Your task to perform on an android device: Open accessibility settings Image 0: 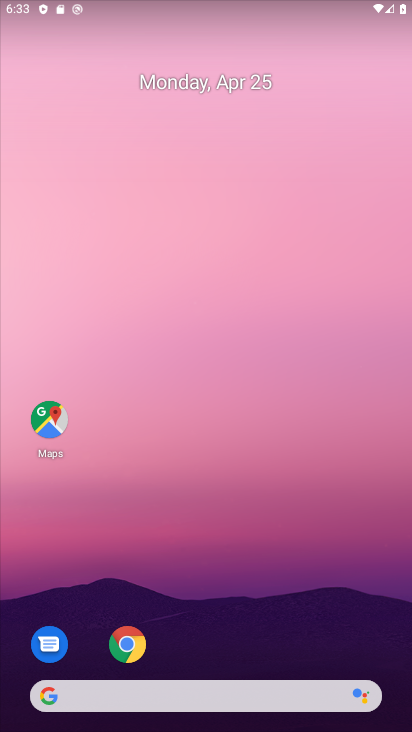
Step 0: drag from (275, 643) to (248, 125)
Your task to perform on an android device: Open accessibility settings Image 1: 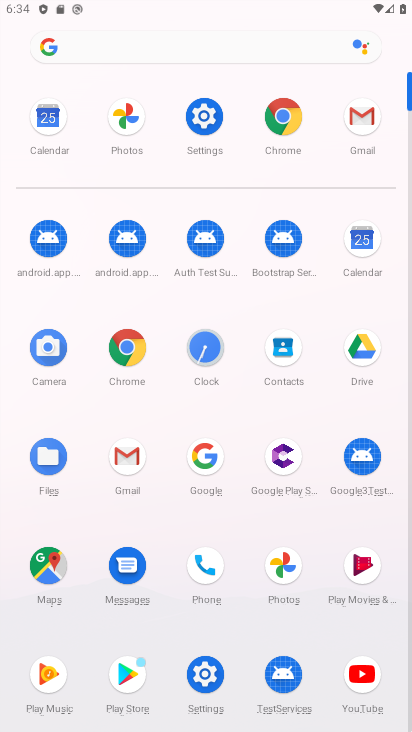
Step 1: click (203, 111)
Your task to perform on an android device: Open accessibility settings Image 2: 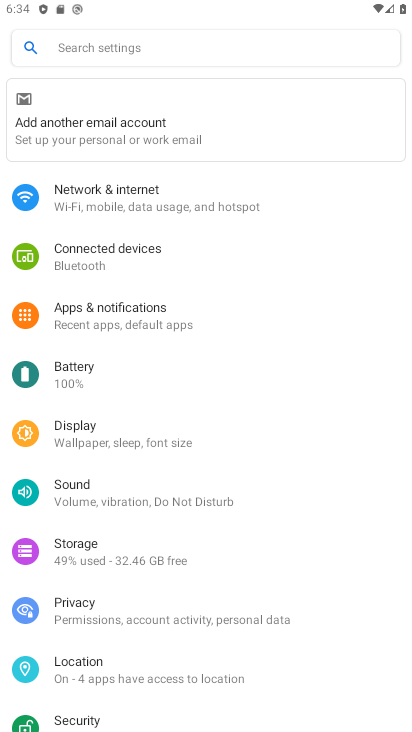
Step 2: drag from (255, 636) to (195, 216)
Your task to perform on an android device: Open accessibility settings Image 3: 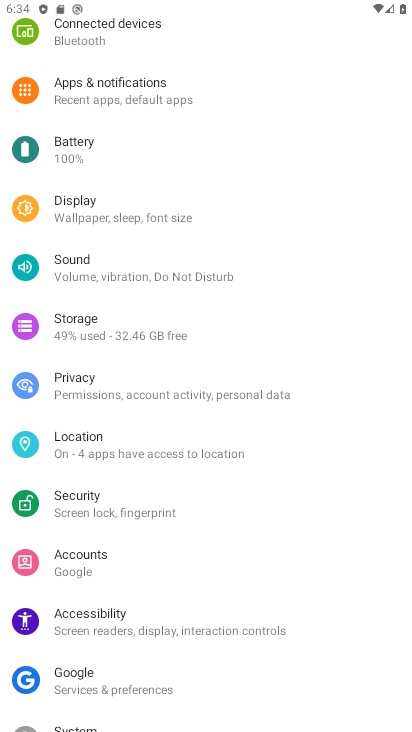
Step 3: click (142, 628)
Your task to perform on an android device: Open accessibility settings Image 4: 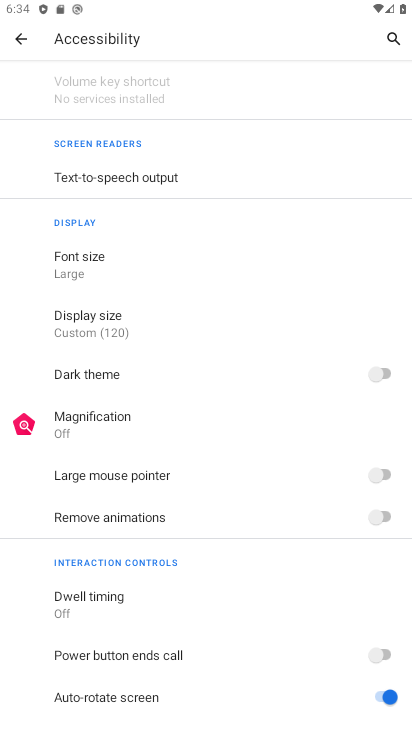
Step 4: task complete